Your task to perform on an android device: show emergency info Image 0: 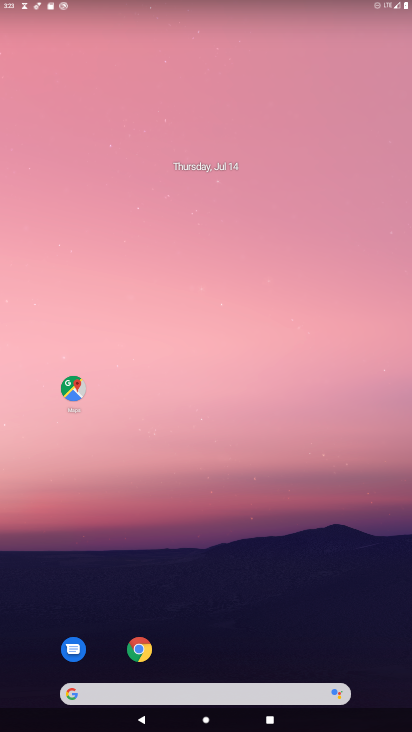
Step 0: drag from (152, 690) to (278, 107)
Your task to perform on an android device: show emergency info Image 1: 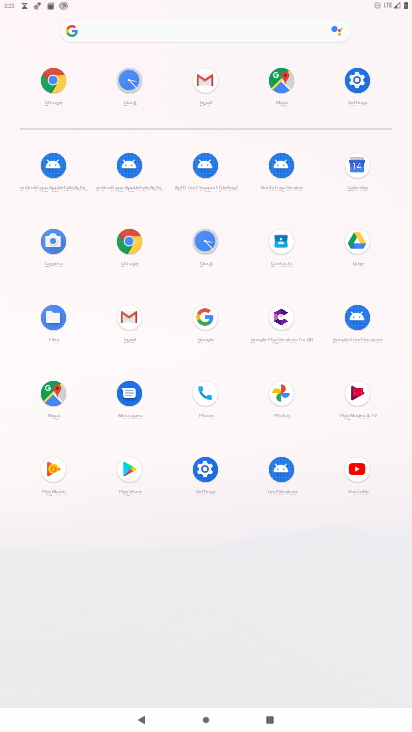
Step 1: click (362, 80)
Your task to perform on an android device: show emergency info Image 2: 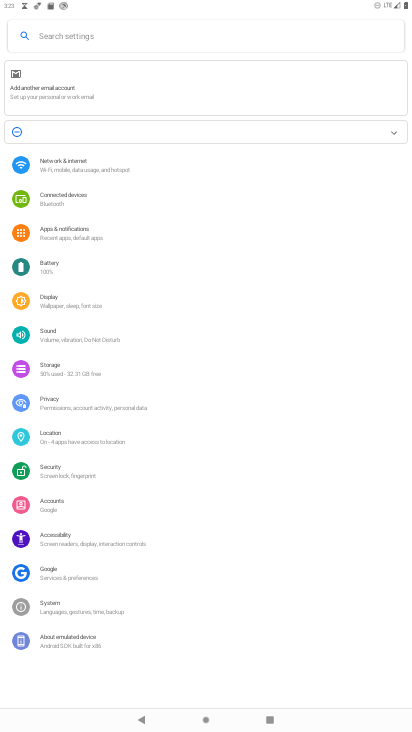
Step 2: click (74, 645)
Your task to perform on an android device: show emergency info Image 3: 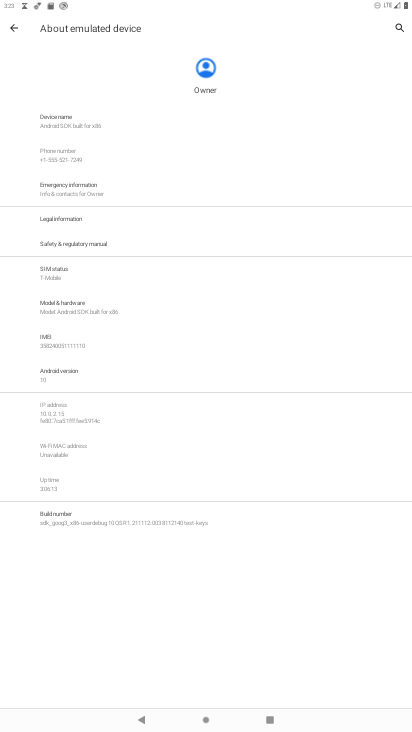
Step 3: click (91, 189)
Your task to perform on an android device: show emergency info Image 4: 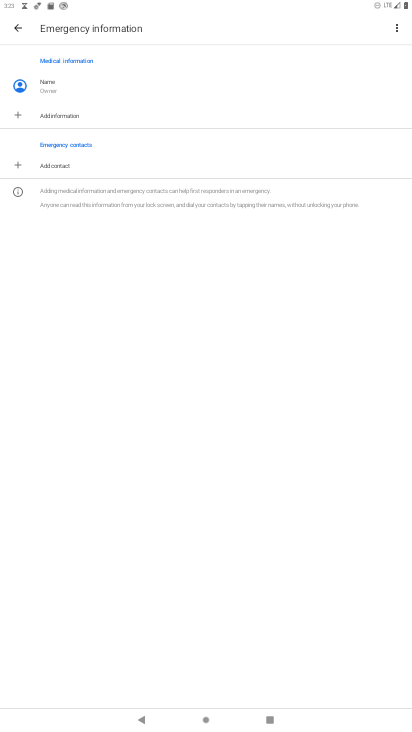
Step 4: task complete